Your task to perform on an android device: Go to internet settings Image 0: 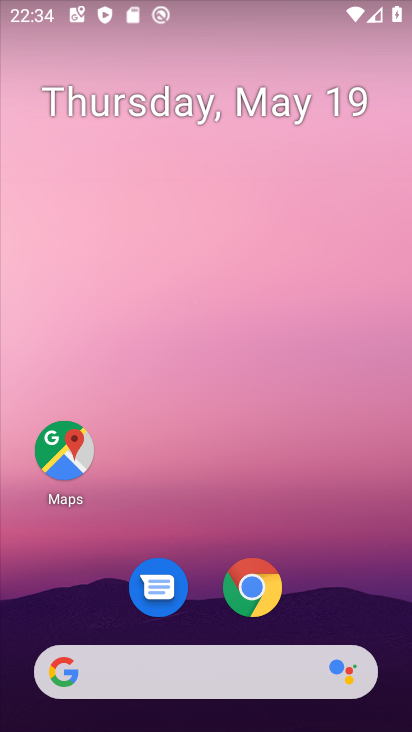
Step 0: press home button
Your task to perform on an android device: Go to internet settings Image 1: 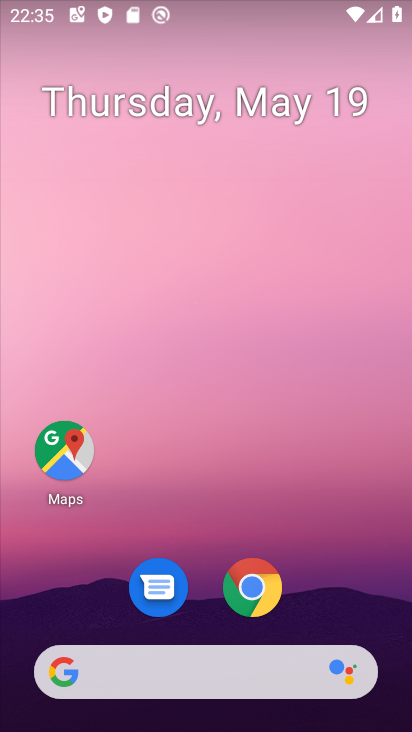
Step 1: drag from (264, 697) to (307, 232)
Your task to perform on an android device: Go to internet settings Image 2: 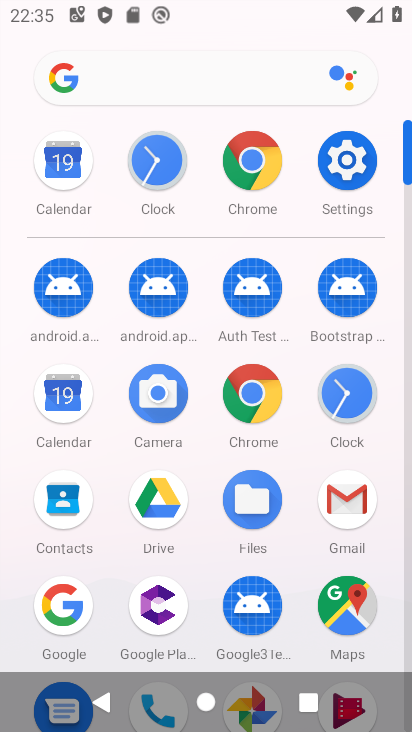
Step 2: click (334, 154)
Your task to perform on an android device: Go to internet settings Image 3: 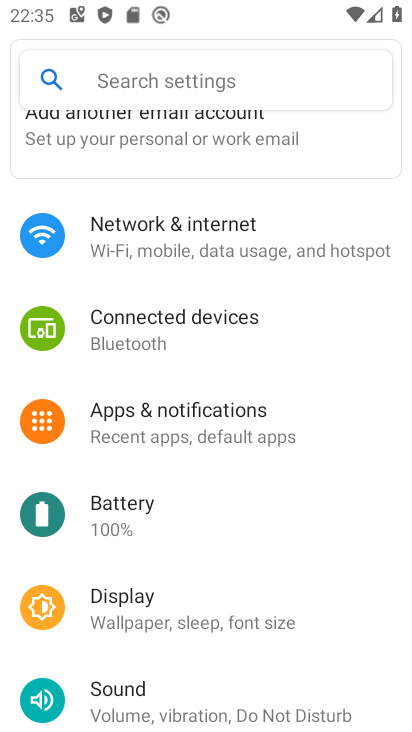
Step 3: click (247, 238)
Your task to perform on an android device: Go to internet settings Image 4: 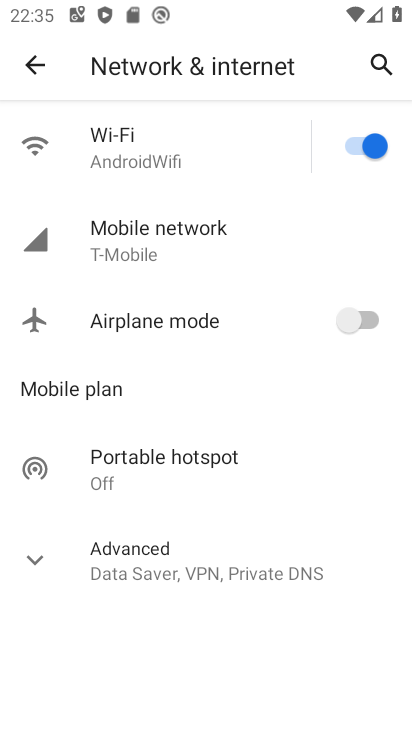
Step 4: task complete